Your task to perform on an android device: Open the stopwatch Image 0: 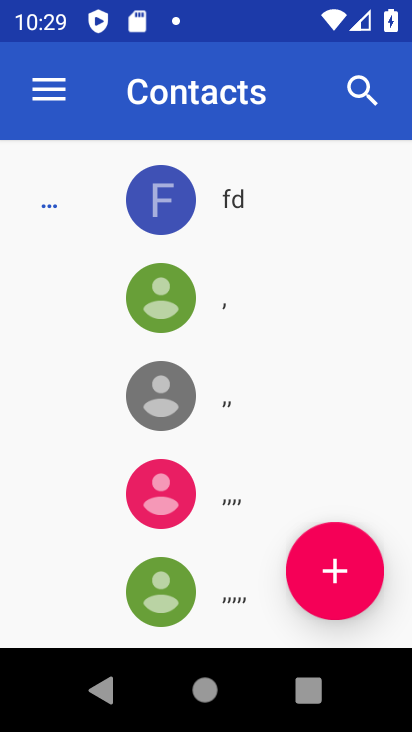
Step 0: press home button
Your task to perform on an android device: Open the stopwatch Image 1: 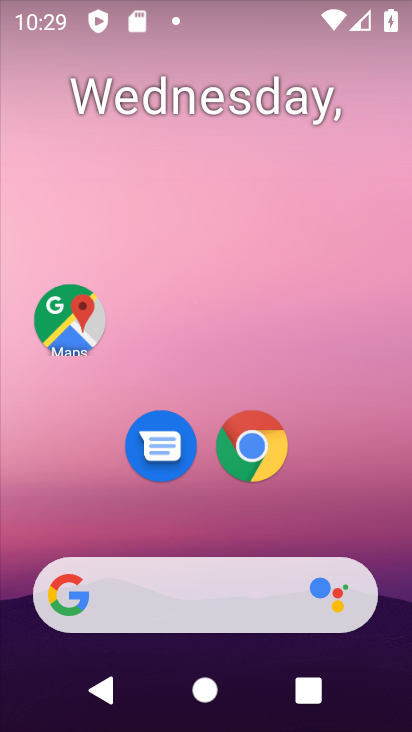
Step 1: drag from (77, 548) to (159, 163)
Your task to perform on an android device: Open the stopwatch Image 2: 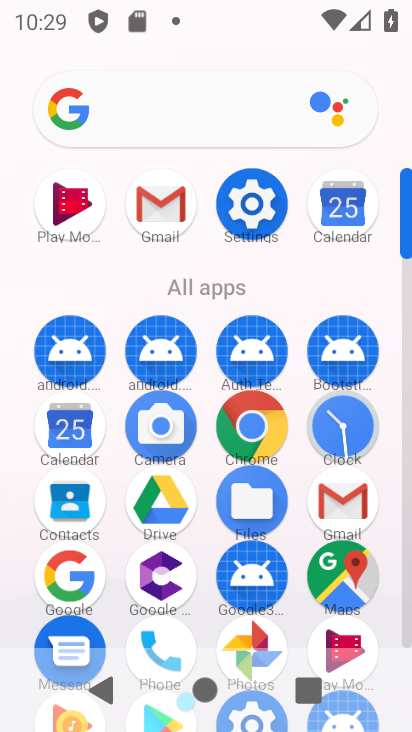
Step 2: click (328, 439)
Your task to perform on an android device: Open the stopwatch Image 3: 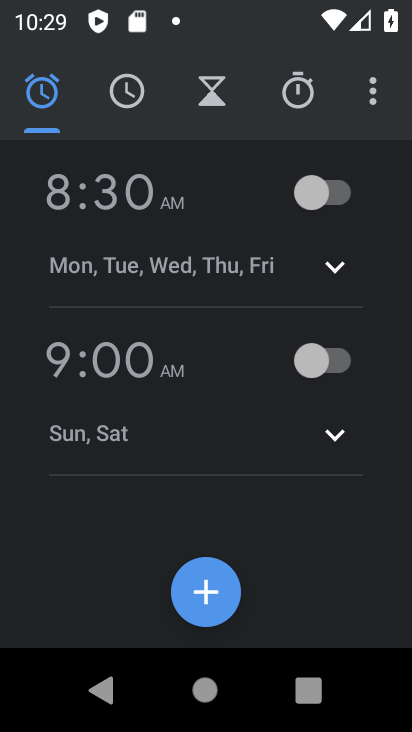
Step 3: click (292, 107)
Your task to perform on an android device: Open the stopwatch Image 4: 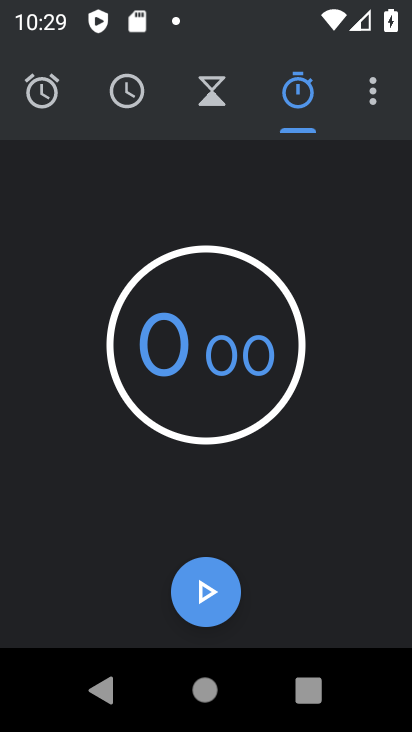
Step 4: task complete